Your task to perform on an android device: turn on sleep mode Image 0: 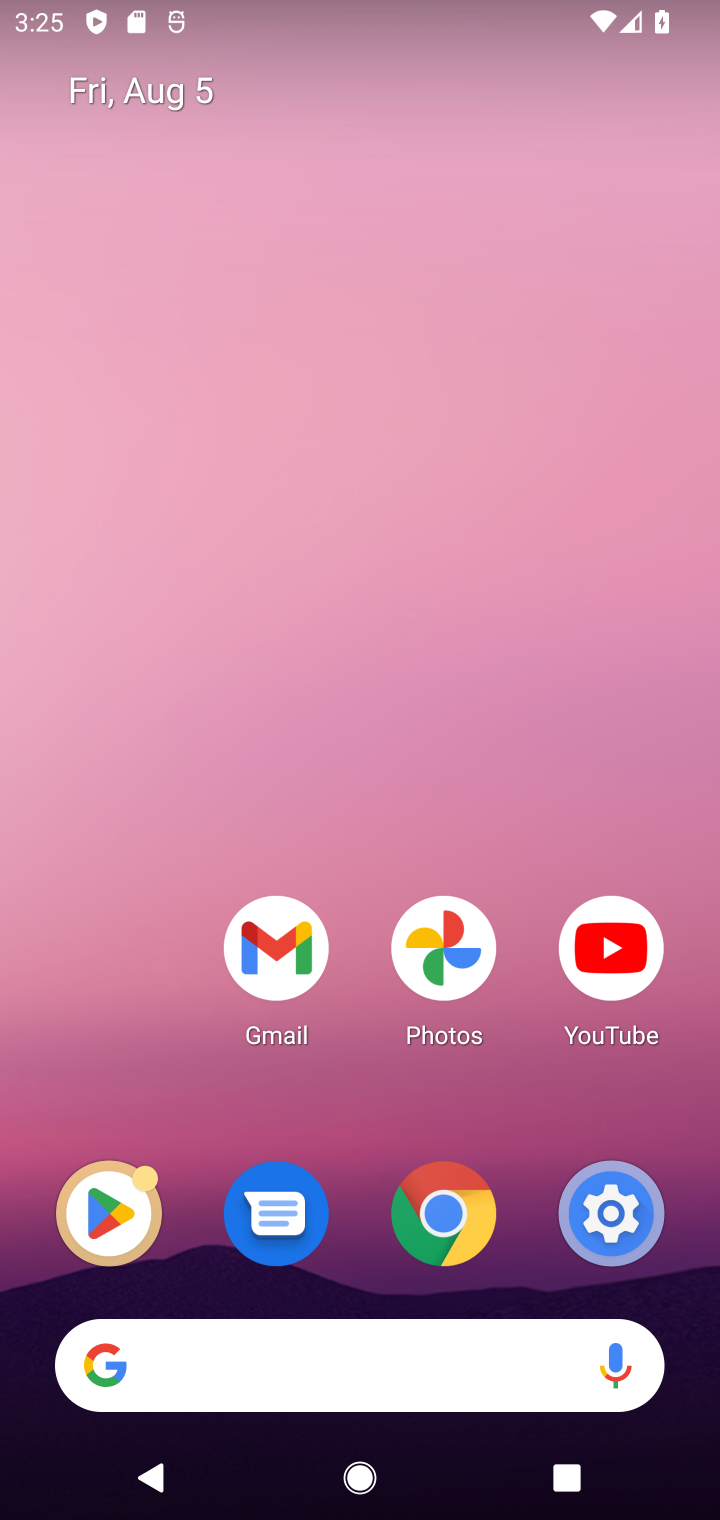
Step 0: drag from (369, 1189) to (708, 315)
Your task to perform on an android device: turn on sleep mode Image 1: 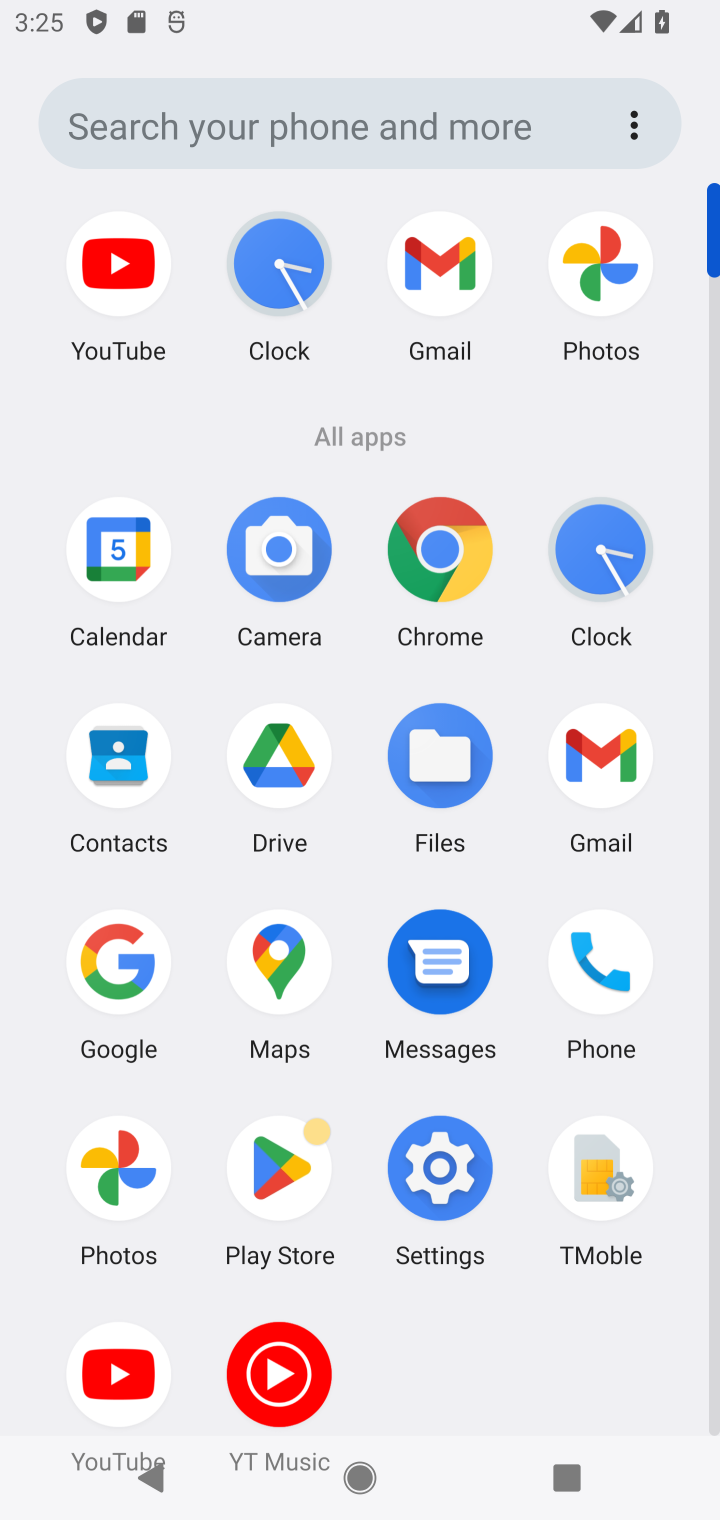
Step 1: click (461, 1156)
Your task to perform on an android device: turn on sleep mode Image 2: 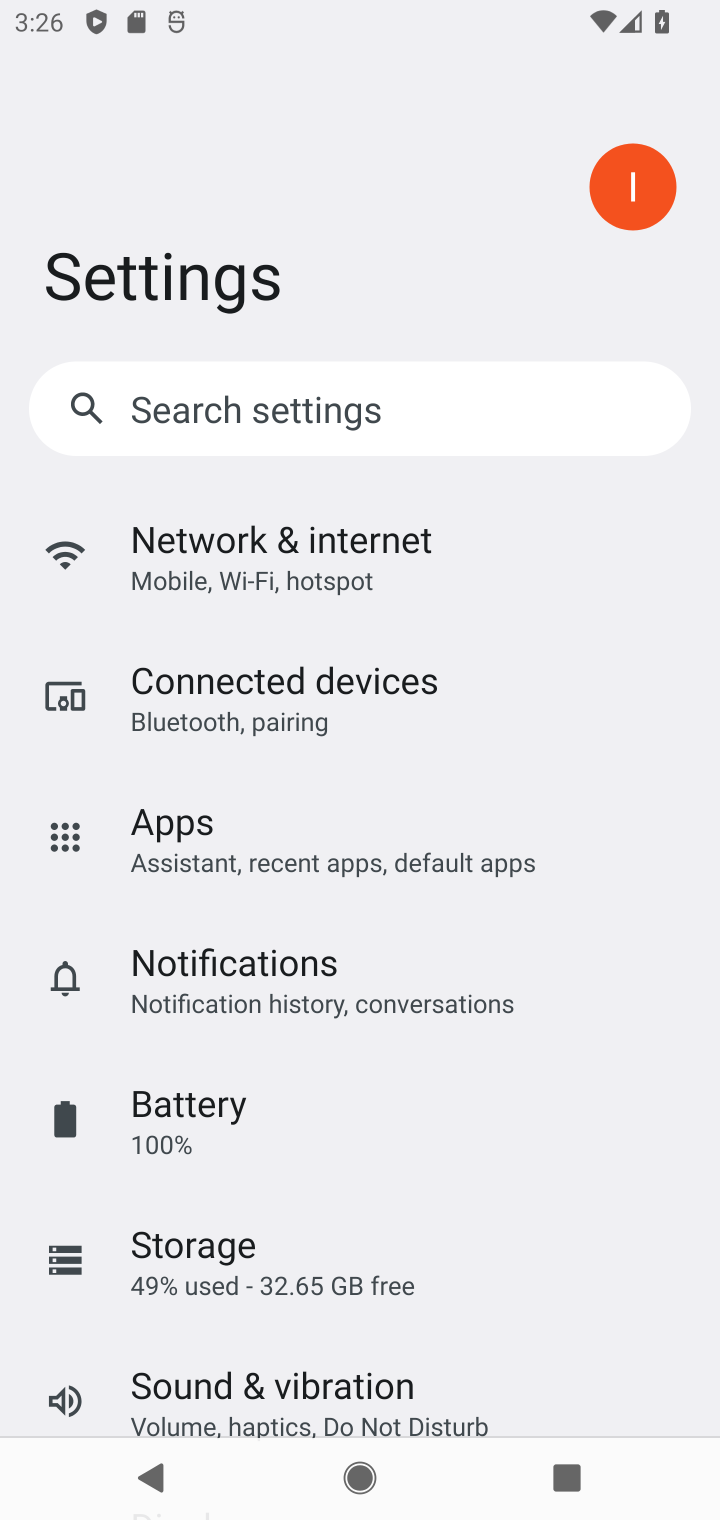
Step 2: drag from (385, 1142) to (391, 466)
Your task to perform on an android device: turn on sleep mode Image 3: 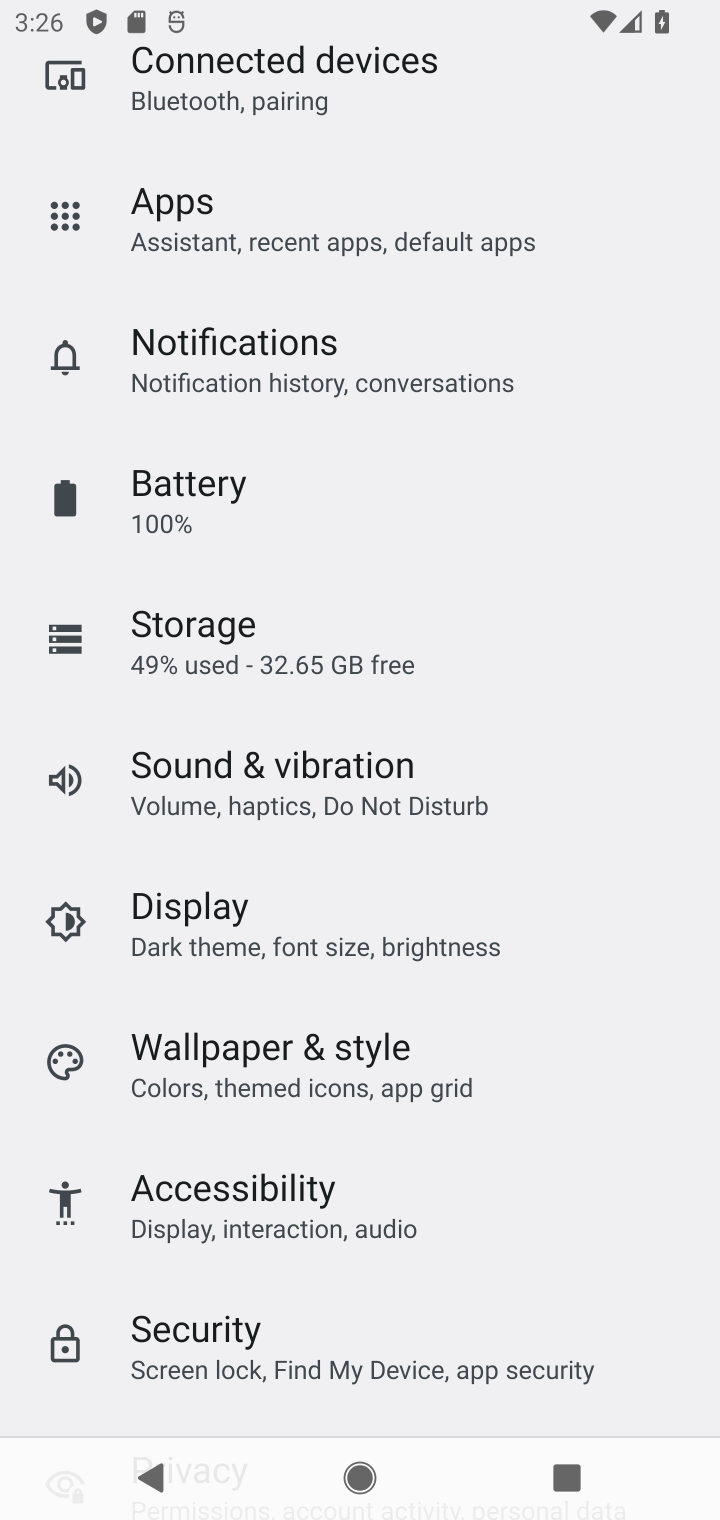
Step 3: click (173, 899)
Your task to perform on an android device: turn on sleep mode Image 4: 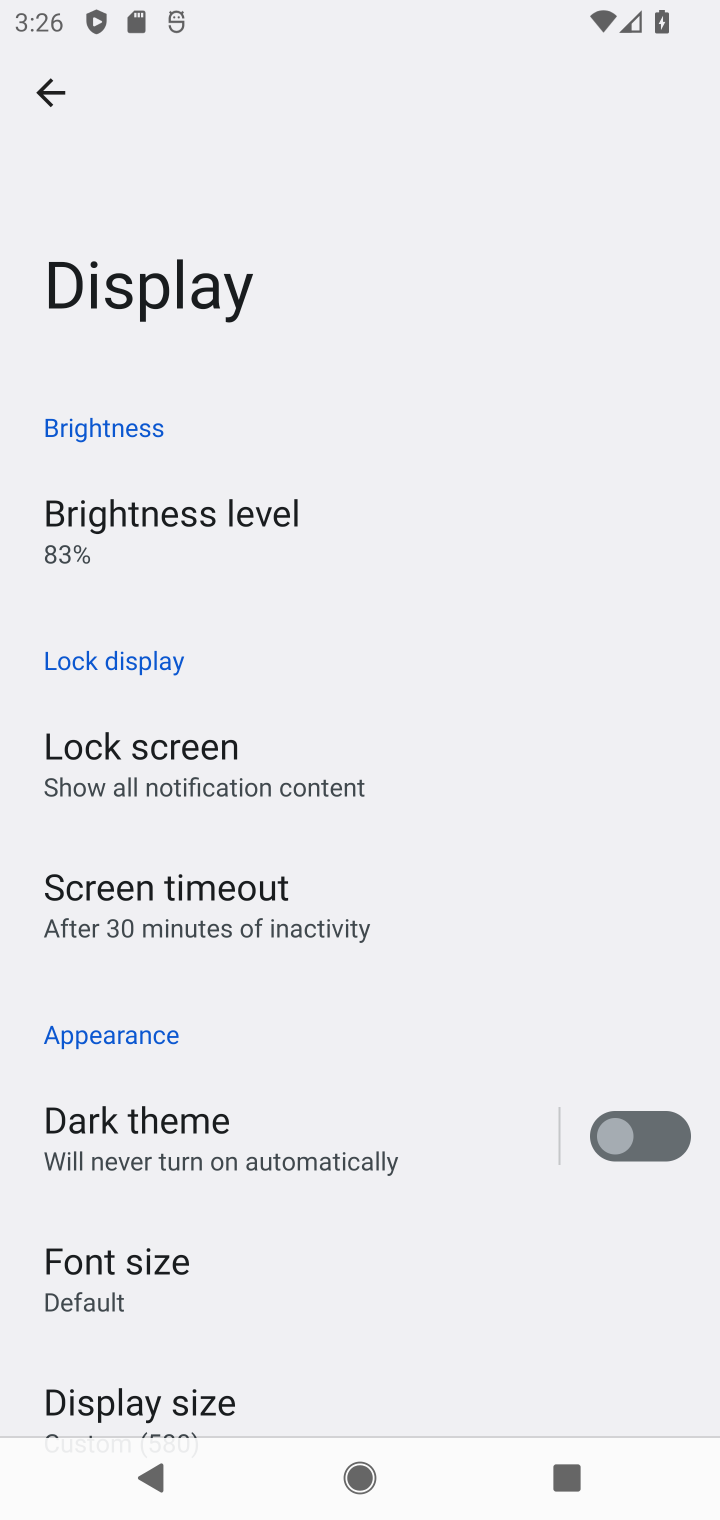
Step 4: task complete